Your task to perform on an android device: Open Yahoo.com Image 0: 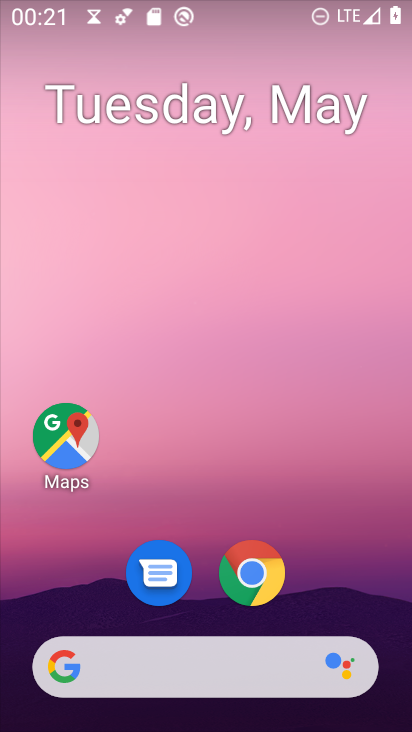
Step 0: click (255, 559)
Your task to perform on an android device: Open Yahoo.com Image 1: 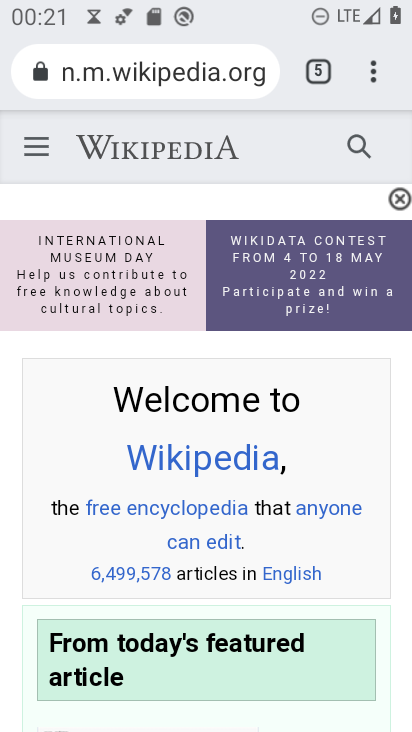
Step 1: click (315, 72)
Your task to perform on an android device: Open Yahoo.com Image 2: 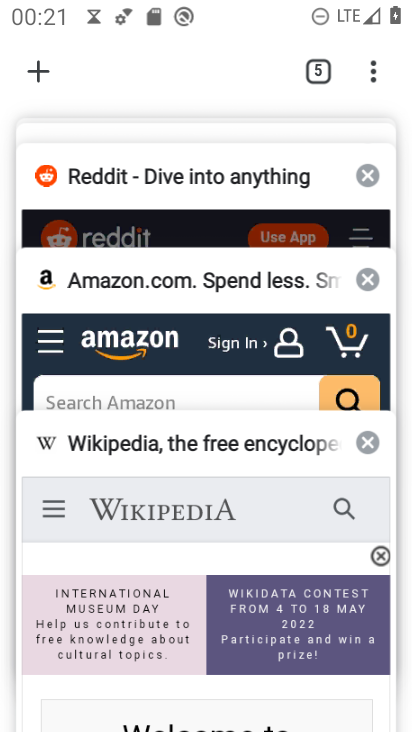
Step 2: click (32, 67)
Your task to perform on an android device: Open Yahoo.com Image 3: 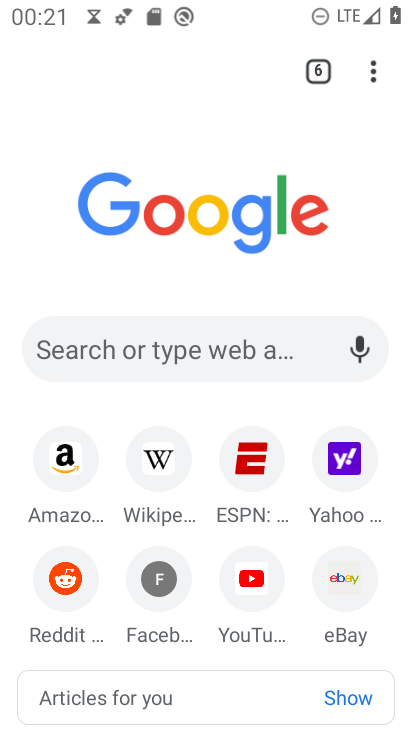
Step 3: click (351, 463)
Your task to perform on an android device: Open Yahoo.com Image 4: 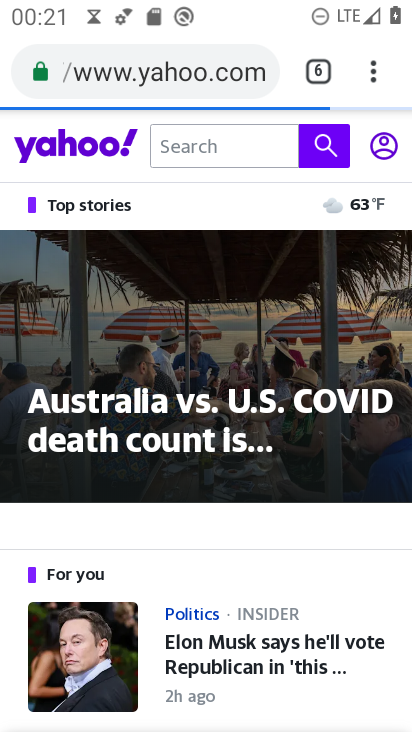
Step 4: task complete